Your task to perform on an android device: Open Youtube and go to the subscriptions tab Image 0: 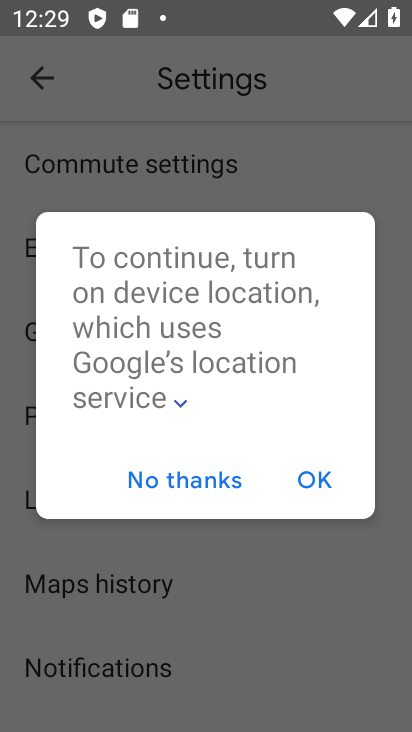
Step 0: press home button
Your task to perform on an android device: Open Youtube and go to the subscriptions tab Image 1: 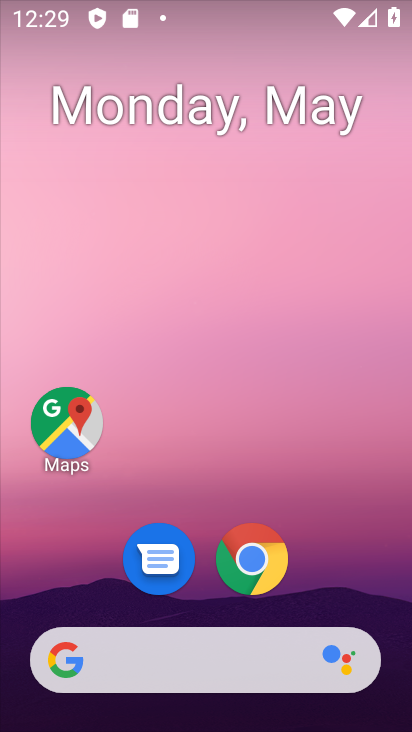
Step 1: drag from (259, 713) to (311, 81)
Your task to perform on an android device: Open Youtube and go to the subscriptions tab Image 2: 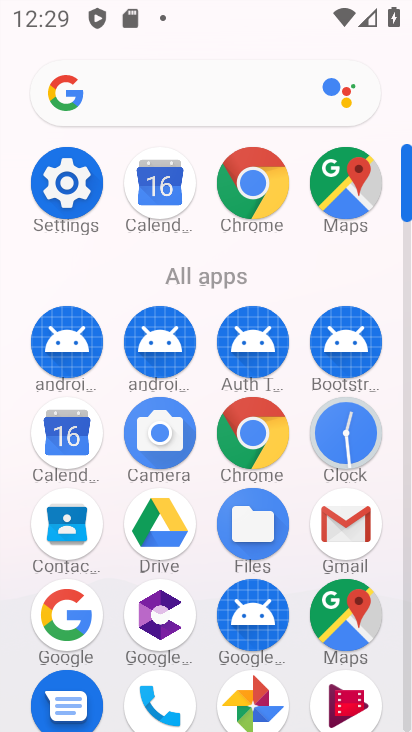
Step 2: drag from (297, 629) to (315, 222)
Your task to perform on an android device: Open Youtube and go to the subscriptions tab Image 3: 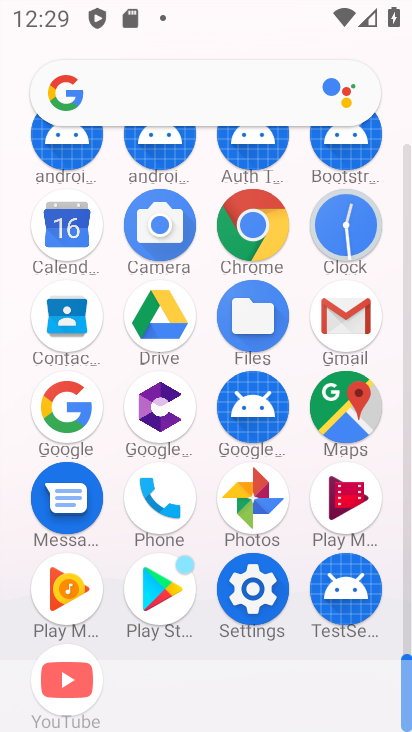
Step 3: click (54, 678)
Your task to perform on an android device: Open Youtube and go to the subscriptions tab Image 4: 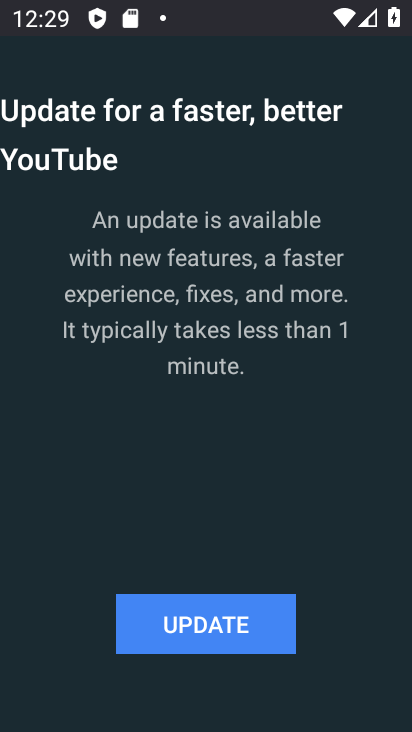
Step 4: click (207, 632)
Your task to perform on an android device: Open Youtube and go to the subscriptions tab Image 5: 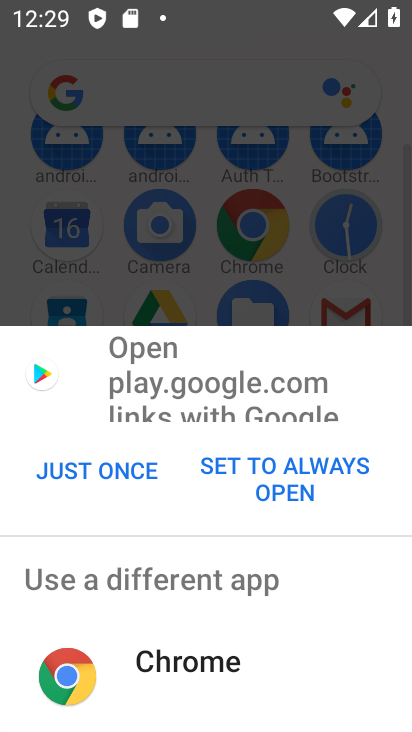
Step 5: click (139, 468)
Your task to perform on an android device: Open Youtube and go to the subscriptions tab Image 6: 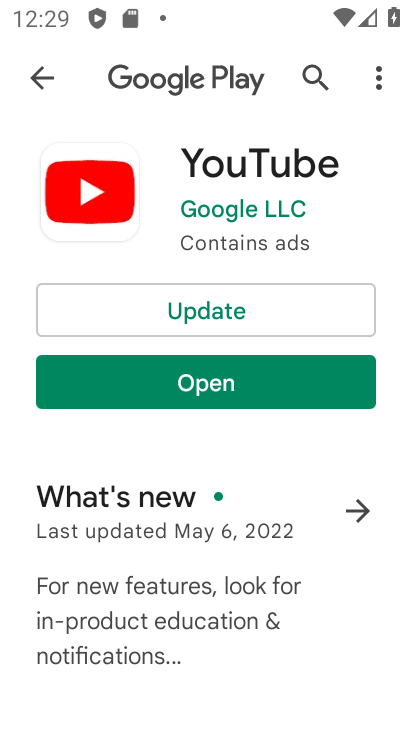
Step 6: click (244, 312)
Your task to perform on an android device: Open Youtube and go to the subscriptions tab Image 7: 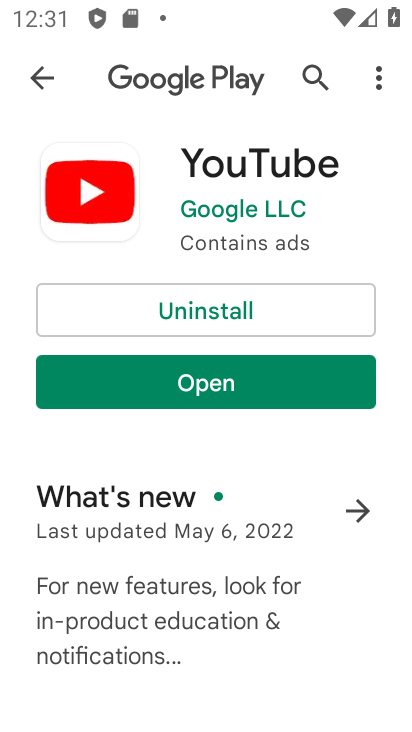
Step 7: click (249, 390)
Your task to perform on an android device: Open Youtube and go to the subscriptions tab Image 8: 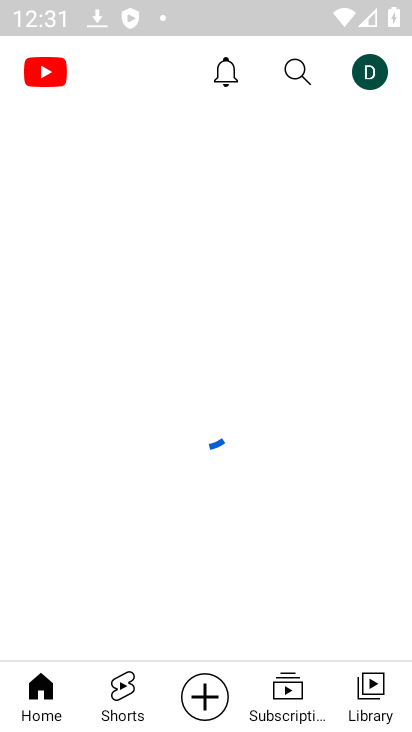
Step 8: click (266, 702)
Your task to perform on an android device: Open Youtube and go to the subscriptions tab Image 9: 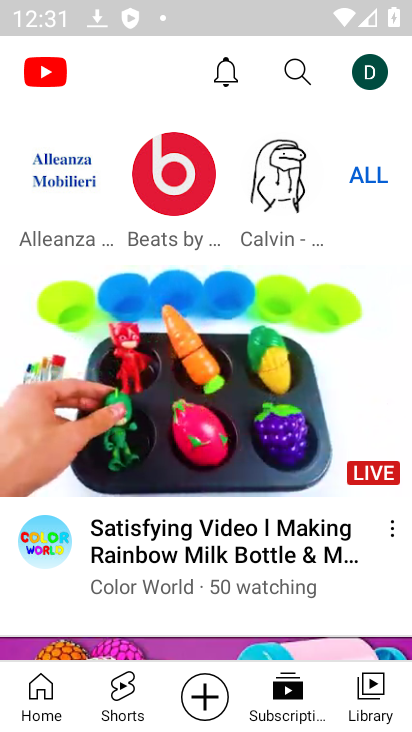
Step 9: task complete